Your task to perform on an android device: turn on wifi Image 0: 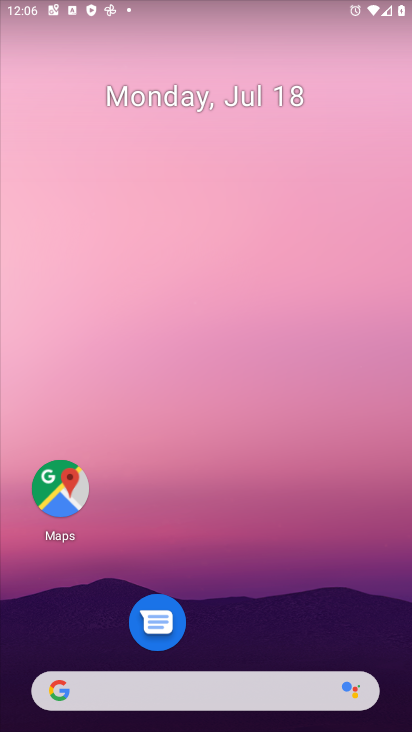
Step 0: drag from (232, 708) to (246, 68)
Your task to perform on an android device: turn on wifi Image 1: 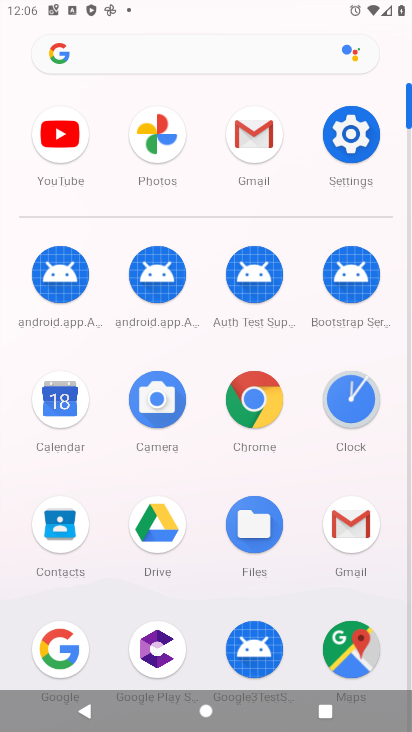
Step 1: click (342, 130)
Your task to perform on an android device: turn on wifi Image 2: 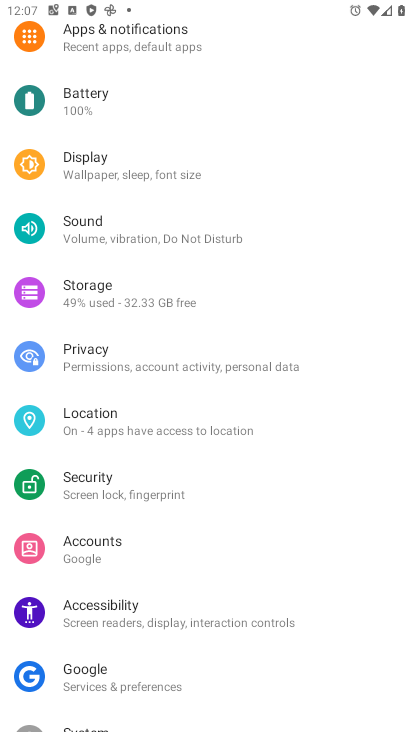
Step 2: drag from (218, 148) to (84, 682)
Your task to perform on an android device: turn on wifi Image 3: 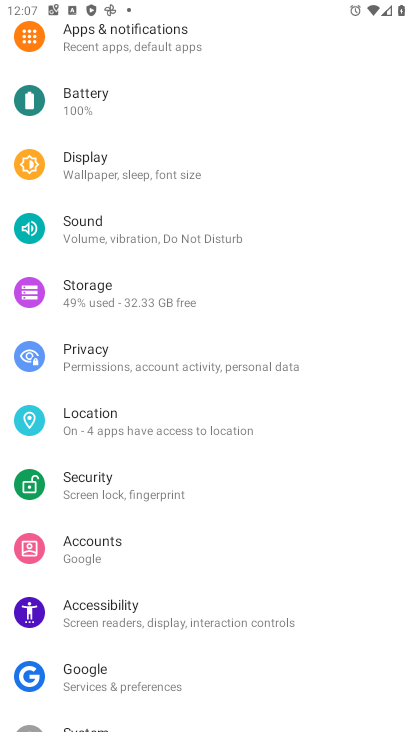
Step 3: drag from (293, 263) to (269, 707)
Your task to perform on an android device: turn on wifi Image 4: 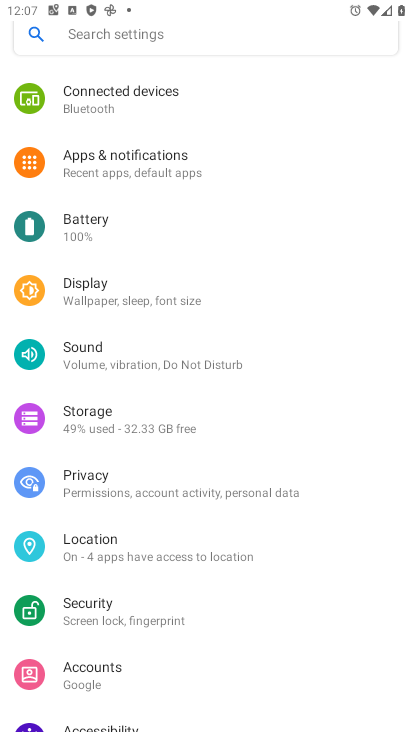
Step 4: drag from (251, 119) to (253, 620)
Your task to perform on an android device: turn on wifi Image 5: 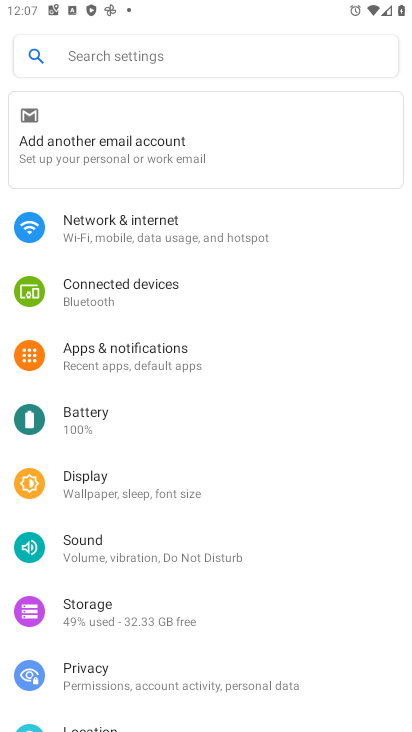
Step 5: click (239, 219)
Your task to perform on an android device: turn on wifi Image 6: 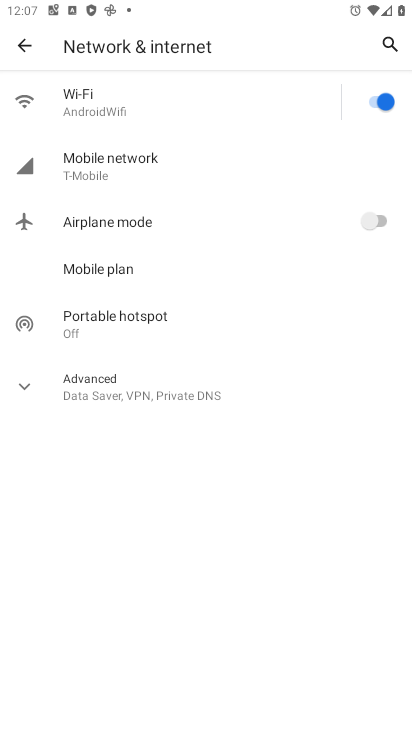
Step 6: task complete